Your task to perform on an android device: What's on my calendar tomorrow? Image 0: 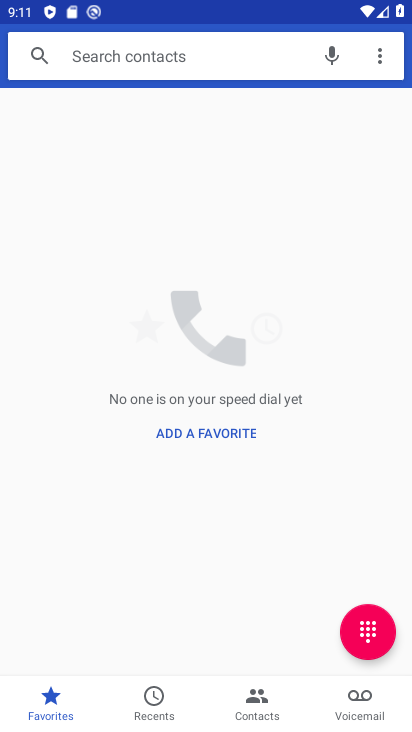
Step 0: press back button
Your task to perform on an android device: What's on my calendar tomorrow? Image 1: 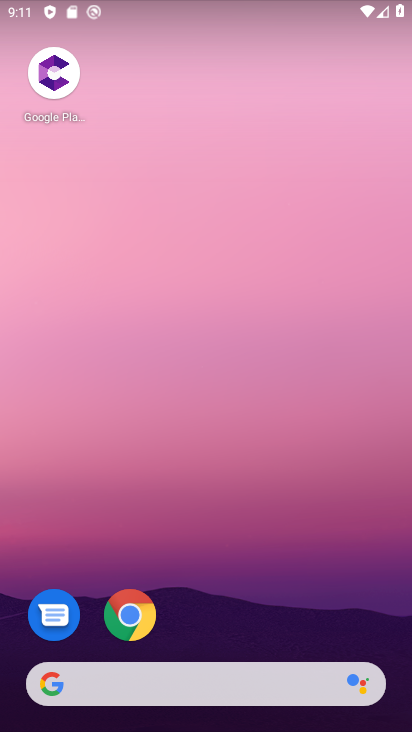
Step 1: drag from (199, 662) to (187, 215)
Your task to perform on an android device: What's on my calendar tomorrow? Image 2: 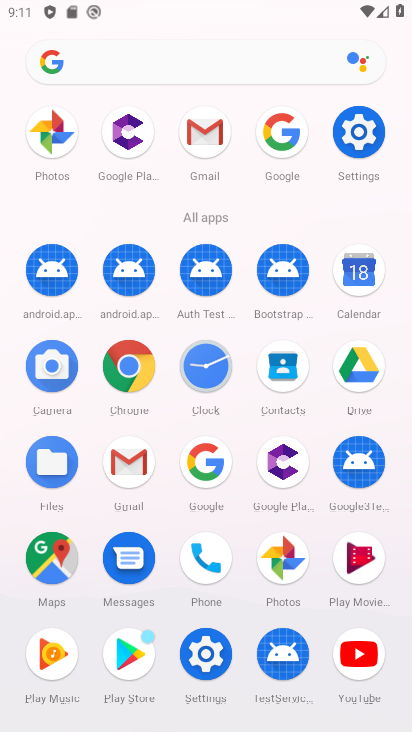
Step 2: click (352, 273)
Your task to perform on an android device: What's on my calendar tomorrow? Image 3: 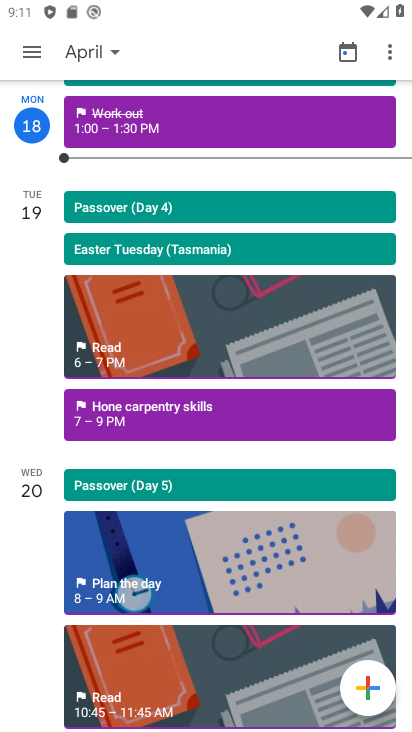
Step 3: click (190, 576)
Your task to perform on an android device: What's on my calendar tomorrow? Image 4: 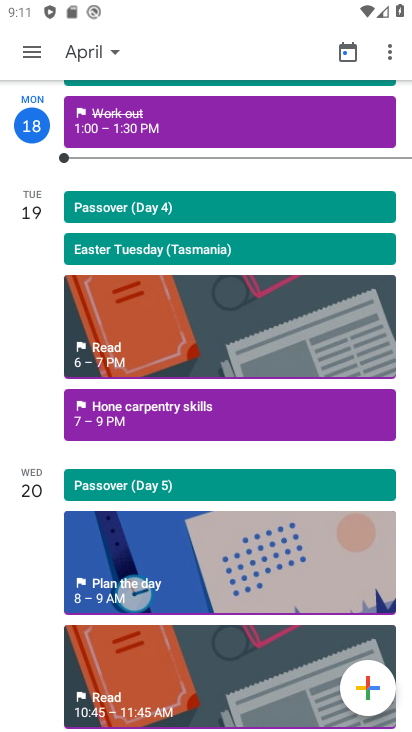
Step 4: task complete